Your task to perform on an android device: turn notification dots on Image 0: 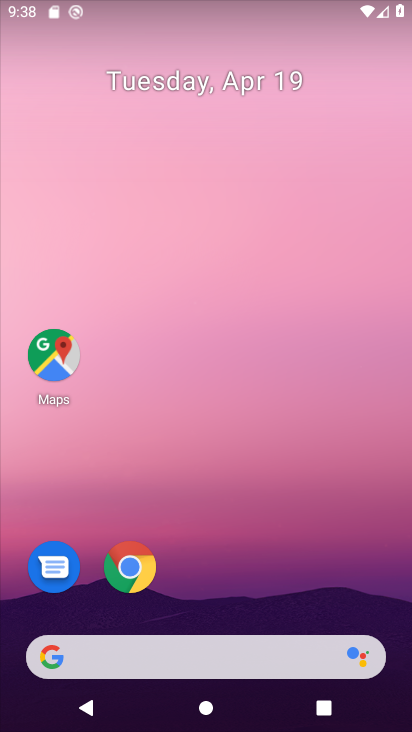
Step 0: drag from (252, 598) to (325, 24)
Your task to perform on an android device: turn notification dots on Image 1: 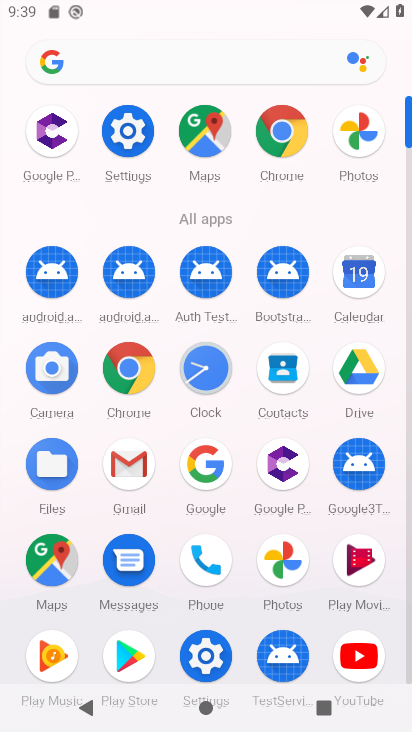
Step 1: click (130, 125)
Your task to perform on an android device: turn notification dots on Image 2: 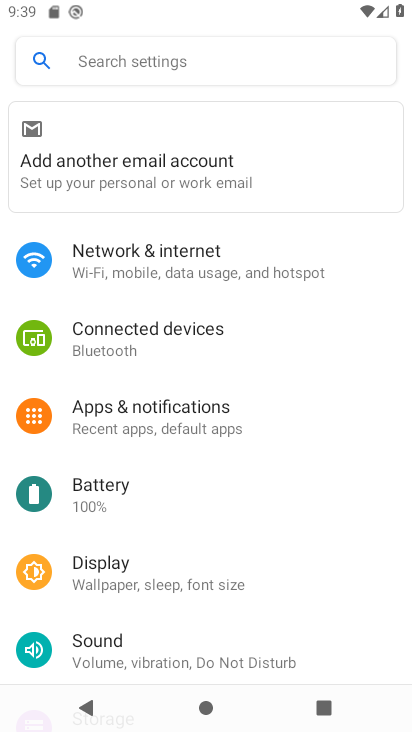
Step 2: click (117, 402)
Your task to perform on an android device: turn notification dots on Image 3: 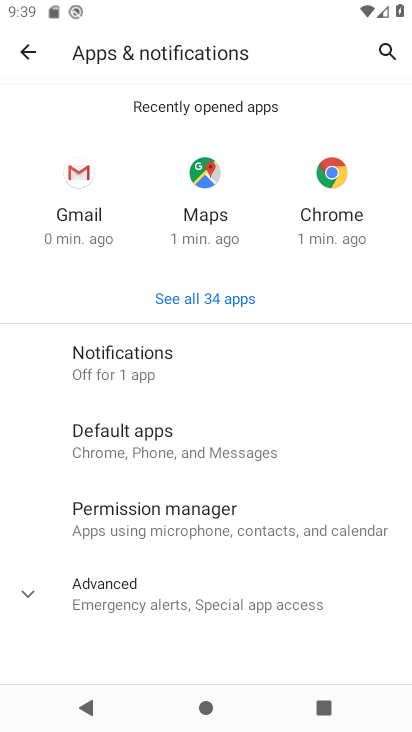
Step 3: click (133, 365)
Your task to perform on an android device: turn notification dots on Image 4: 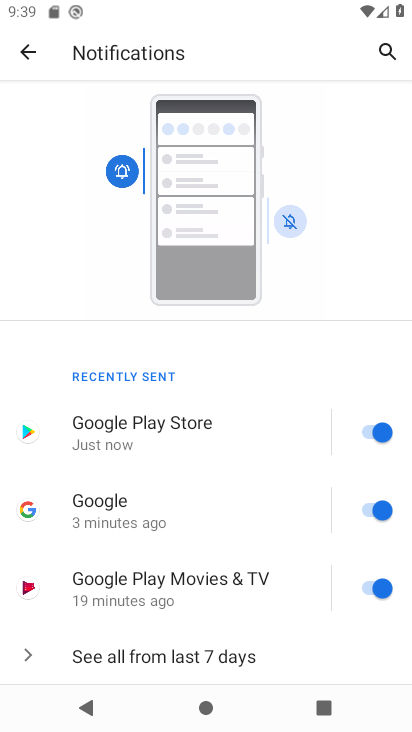
Step 4: drag from (139, 449) to (147, 388)
Your task to perform on an android device: turn notification dots on Image 5: 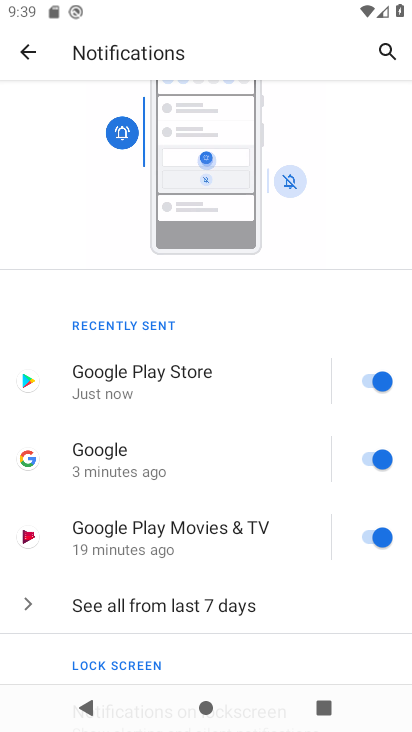
Step 5: drag from (109, 492) to (155, 389)
Your task to perform on an android device: turn notification dots on Image 6: 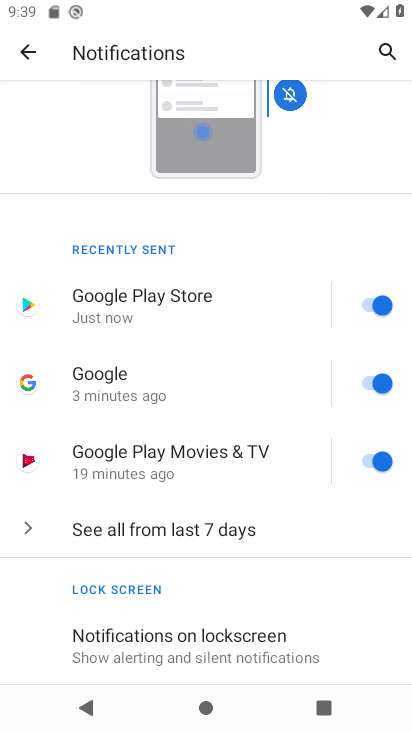
Step 6: drag from (141, 533) to (183, 444)
Your task to perform on an android device: turn notification dots on Image 7: 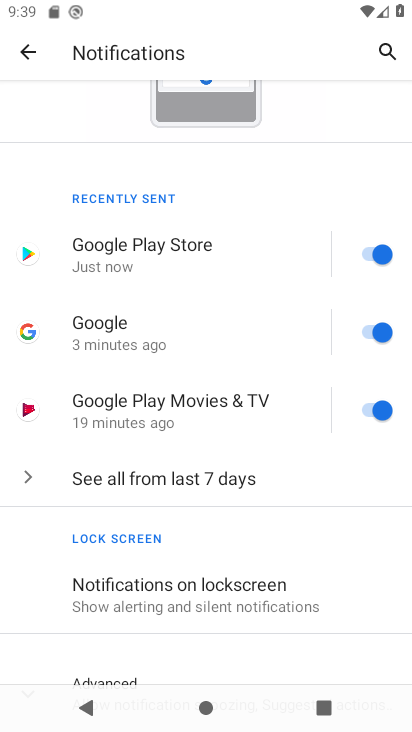
Step 7: drag from (185, 578) to (214, 502)
Your task to perform on an android device: turn notification dots on Image 8: 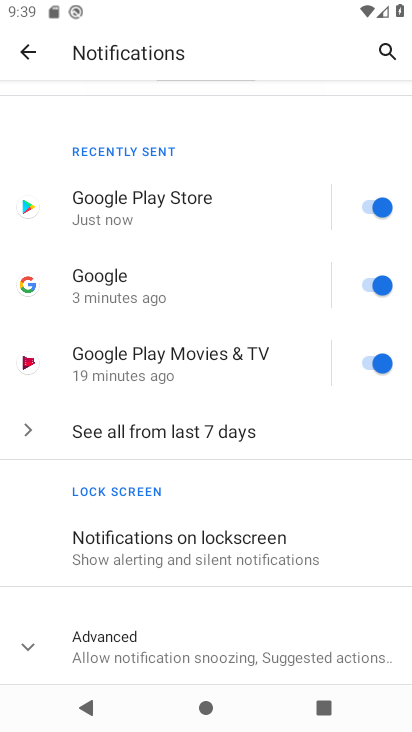
Step 8: click (151, 638)
Your task to perform on an android device: turn notification dots on Image 9: 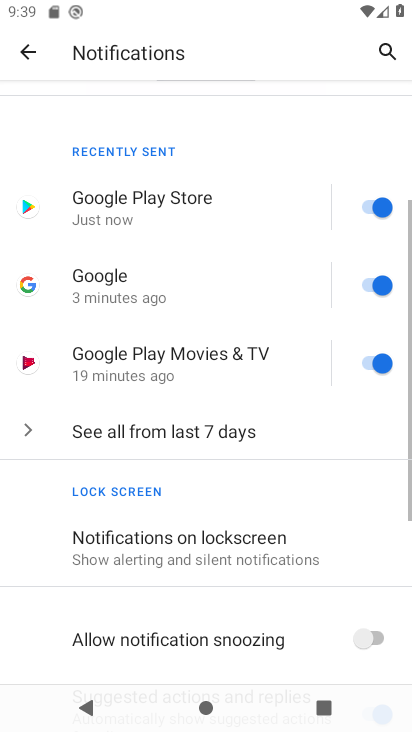
Step 9: task complete